Your task to perform on an android device: Open privacy settings Image 0: 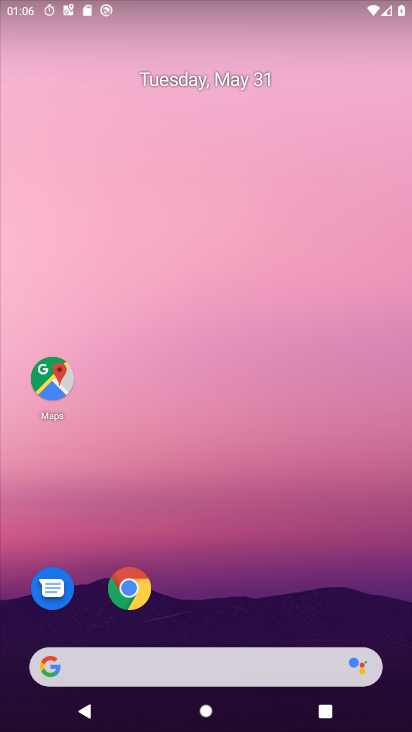
Step 0: drag from (330, 643) to (303, 3)
Your task to perform on an android device: Open privacy settings Image 1: 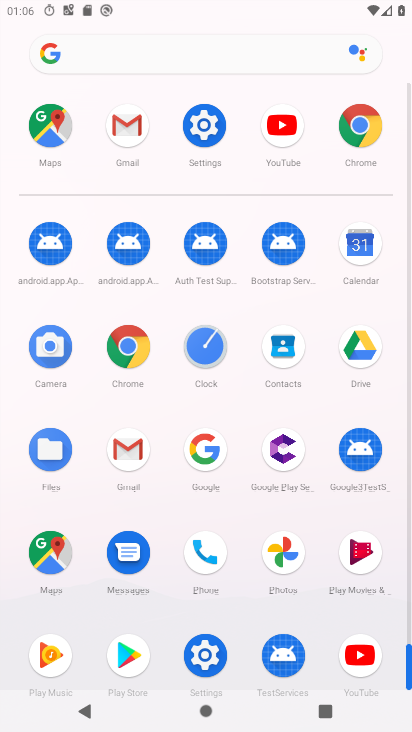
Step 1: click (214, 124)
Your task to perform on an android device: Open privacy settings Image 2: 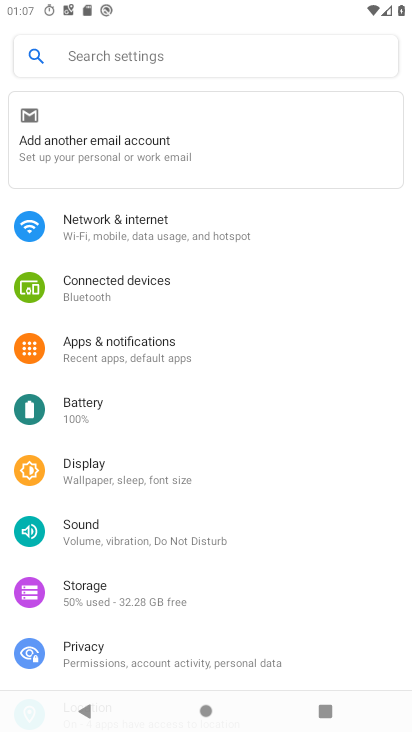
Step 2: click (157, 663)
Your task to perform on an android device: Open privacy settings Image 3: 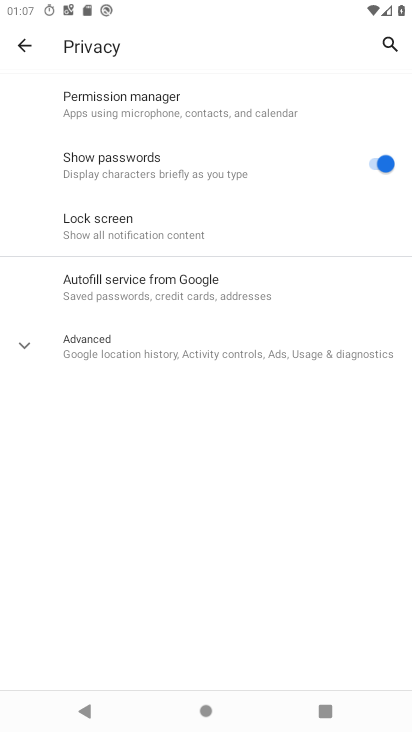
Step 3: task complete